Your task to perform on an android device: move a message to another label in the gmail app Image 0: 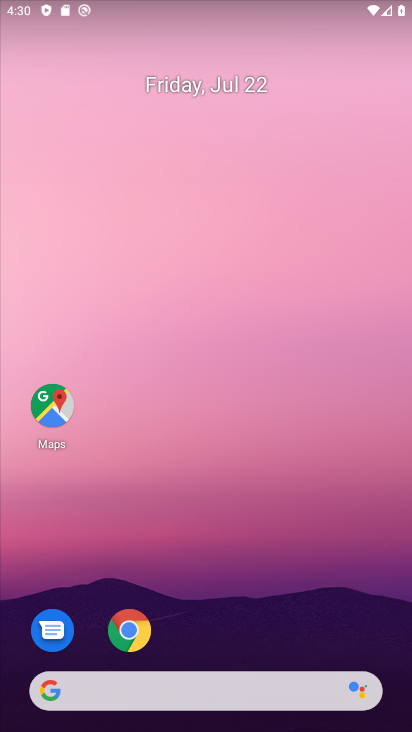
Step 0: drag from (186, 605) to (209, 203)
Your task to perform on an android device: move a message to another label in the gmail app Image 1: 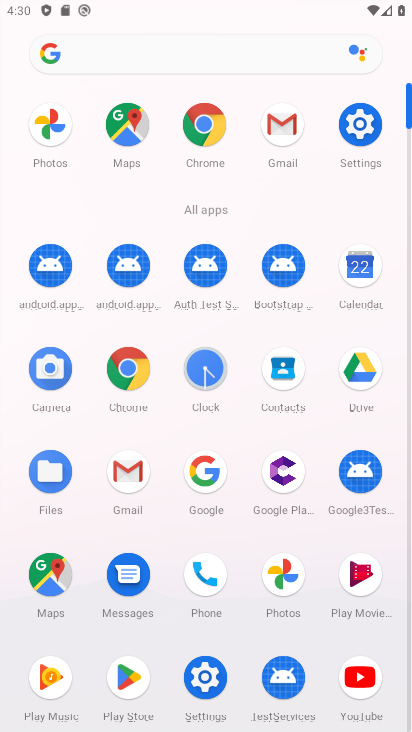
Step 1: click (128, 475)
Your task to perform on an android device: move a message to another label in the gmail app Image 2: 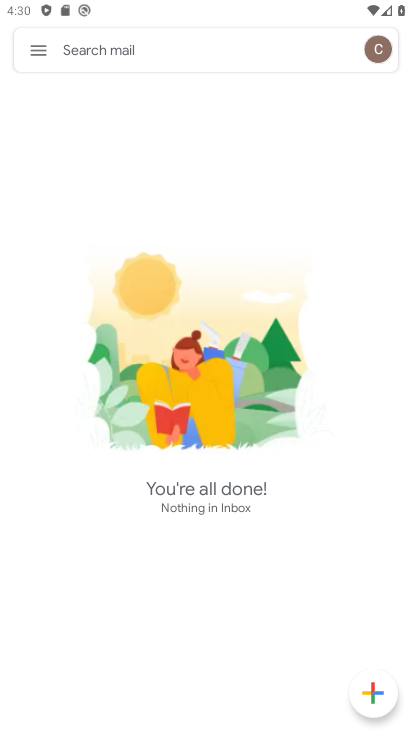
Step 2: click (42, 53)
Your task to perform on an android device: move a message to another label in the gmail app Image 3: 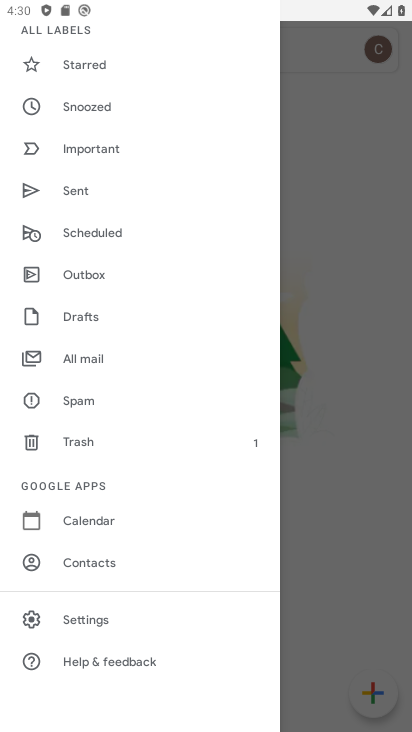
Step 3: click (83, 361)
Your task to perform on an android device: move a message to another label in the gmail app Image 4: 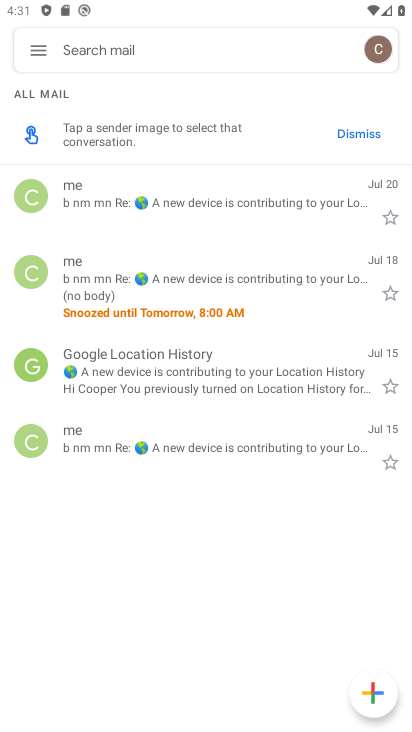
Step 4: click (230, 197)
Your task to perform on an android device: move a message to another label in the gmail app Image 5: 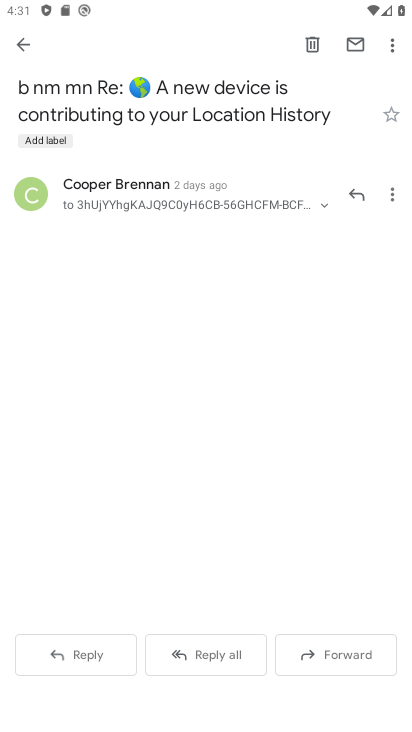
Step 5: click (51, 140)
Your task to perform on an android device: move a message to another label in the gmail app Image 6: 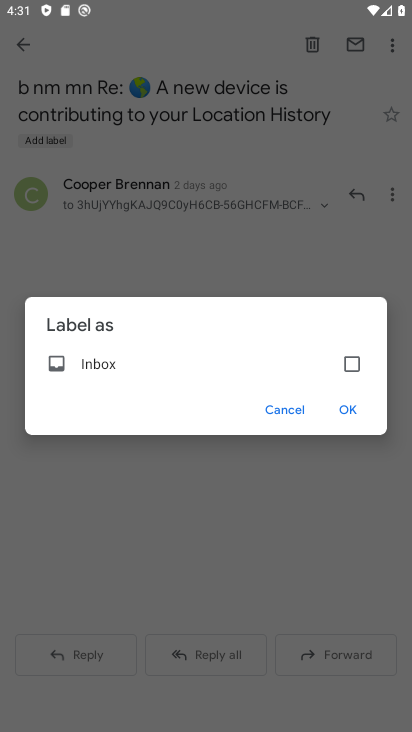
Step 6: click (352, 362)
Your task to perform on an android device: move a message to another label in the gmail app Image 7: 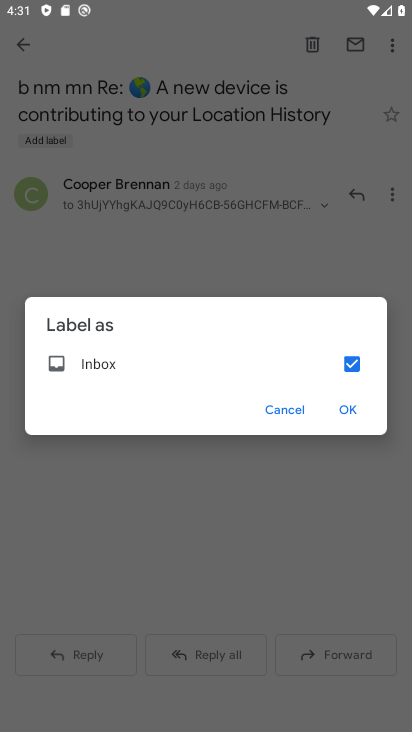
Step 7: click (346, 416)
Your task to perform on an android device: move a message to another label in the gmail app Image 8: 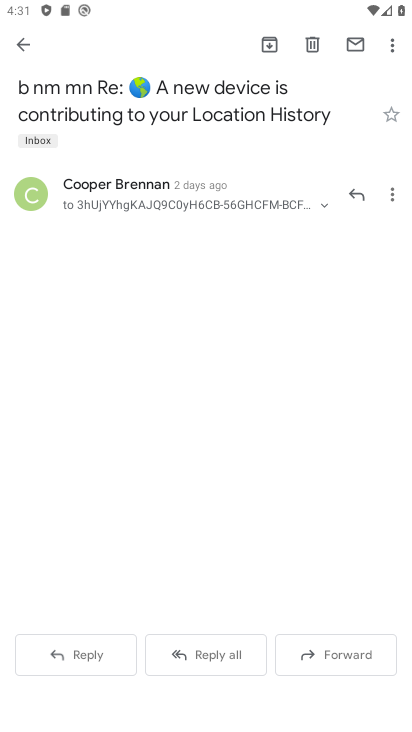
Step 8: task complete